Your task to perform on an android device: toggle pop-ups in chrome Image 0: 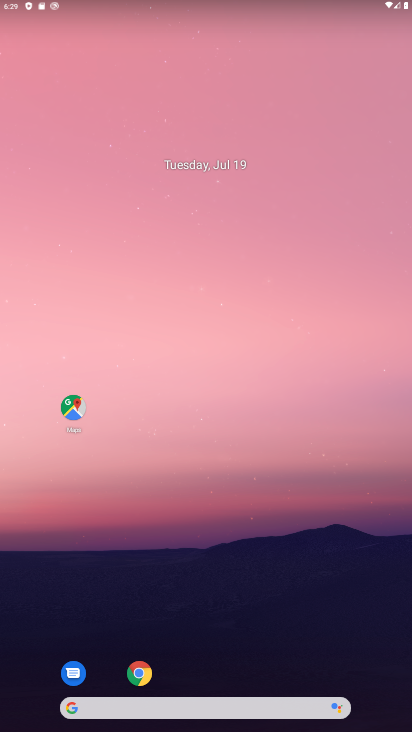
Step 0: drag from (355, 641) to (187, 7)
Your task to perform on an android device: toggle pop-ups in chrome Image 1: 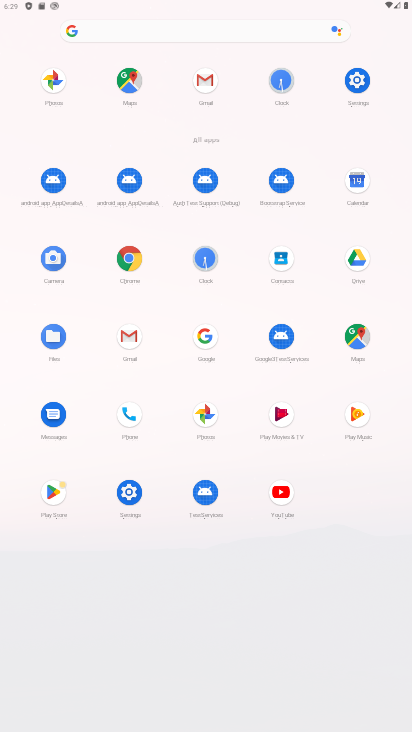
Step 1: click (135, 266)
Your task to perform on an android device: toggle pop-ups in chrome Image 2: 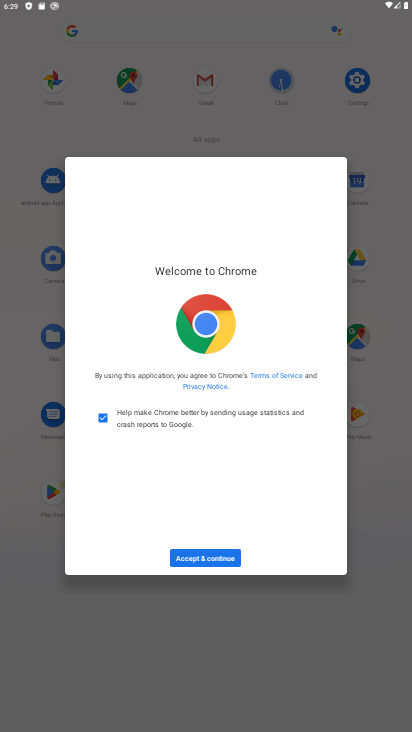
Step 2: click (191, 556)
Your task to perform on an android device: toggle pop-ups in chrome Image 3: 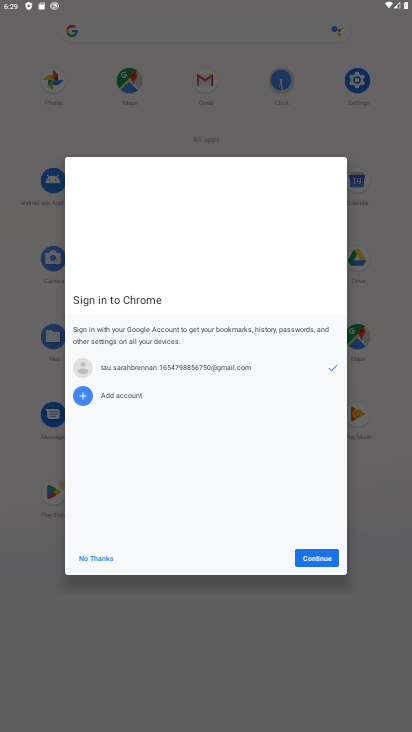
Step 3: click (317, 559)
Your task to perform on an android device: toggle pop-ups in chrome Image 4: 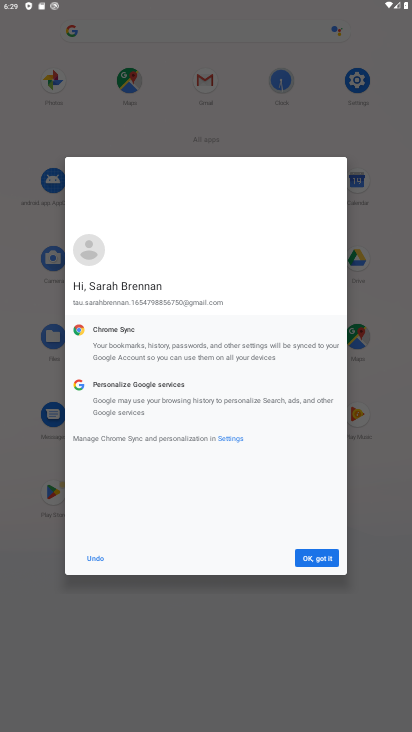
Step 4: click (317, 559)
Your task to perform on an android device: toggle pop-ups in chrome Image 5: 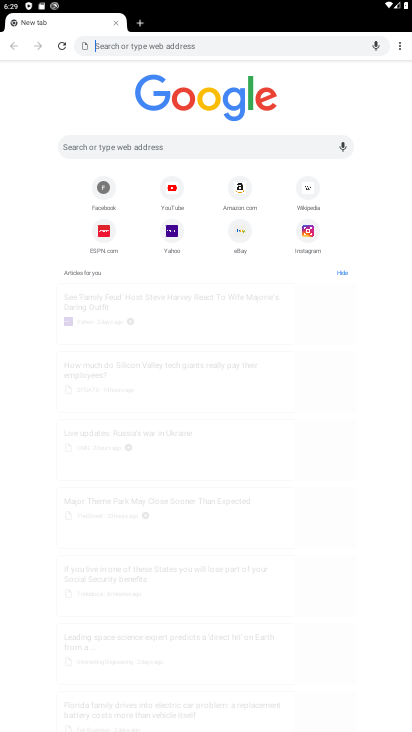
Step 5: click (400, 40)
Your task to perform on an android device: toggle pop-ups in chrome Image 6: 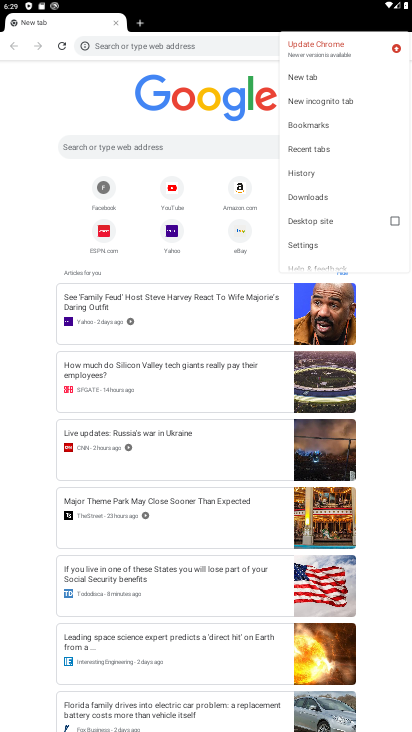
Step 6: click (309, 241)
Your task to perform on an android device: toggle pop-ups in chrome Image 7: 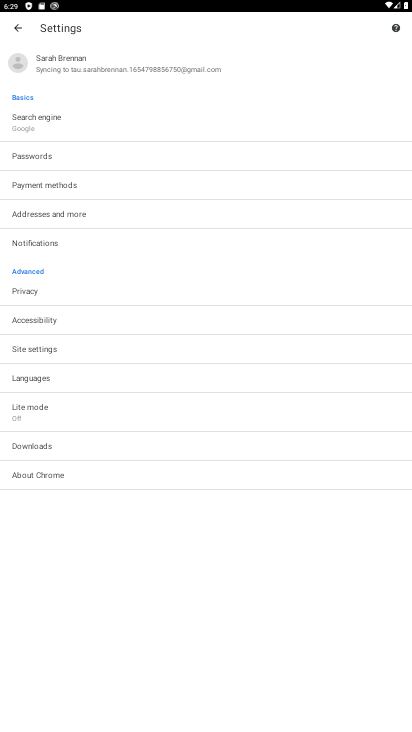
Step 7: click (43, 353)
Your task to perform on an android device: toggle pop-ups in chrome Image 8: 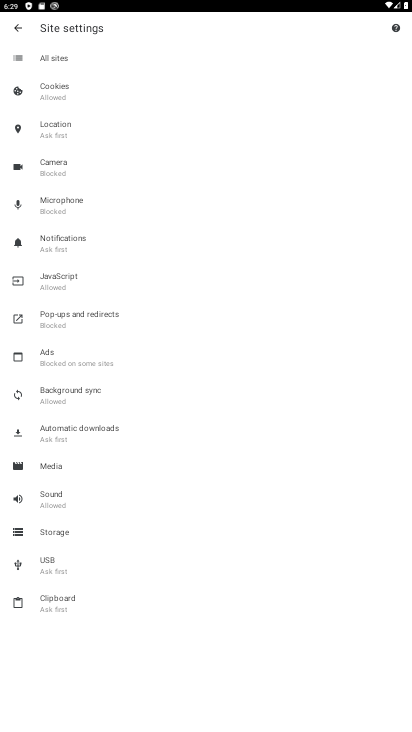
Step 8: click (62, 323)
Your task to perform on an android device: toggle pop-ups in chrome Image 9: 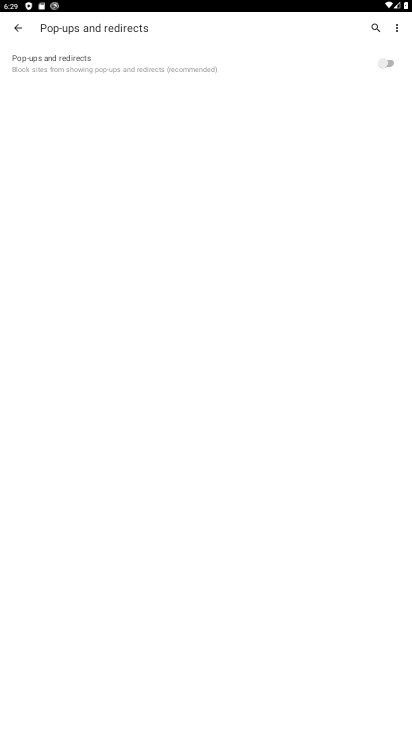
Step 9: click (314, 61)
Your task to perform on an android device: toggle pop-ups in chrome Image 10: 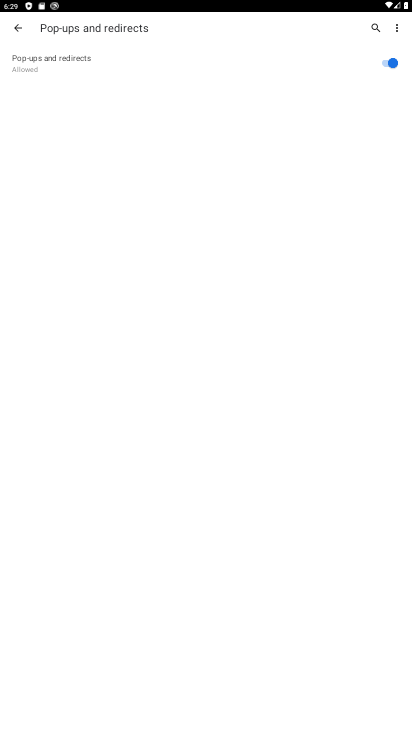
Step 10: task complete